Your task to perform on an android device: Show me productivity apps on the Play Store Image 0: 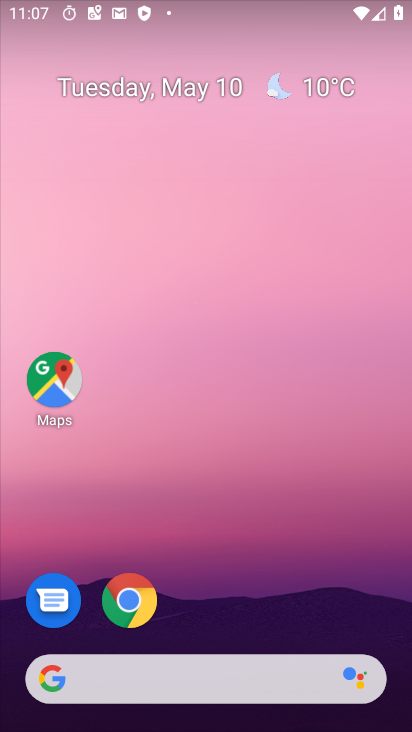
Step 0: drag from (233, 588) to (228, 0)
Your task to perform on an android device: Show me productivity apps on the Play Store Image 1: 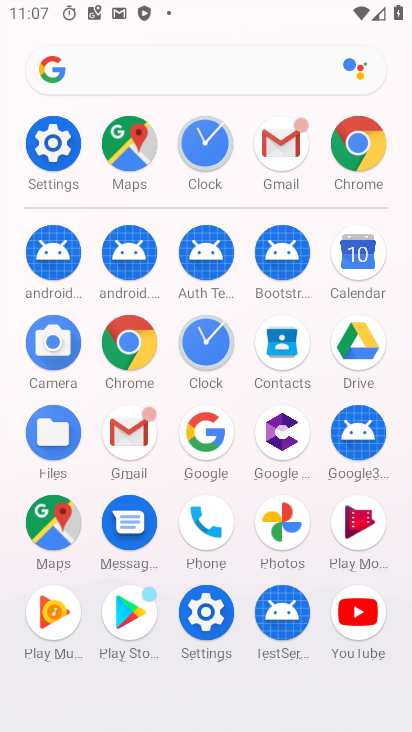
Step 1: drag from (3, 585) to (1, 264)
Your task to perform on an android device: Show me productivity apps on the Play Store Image 2: 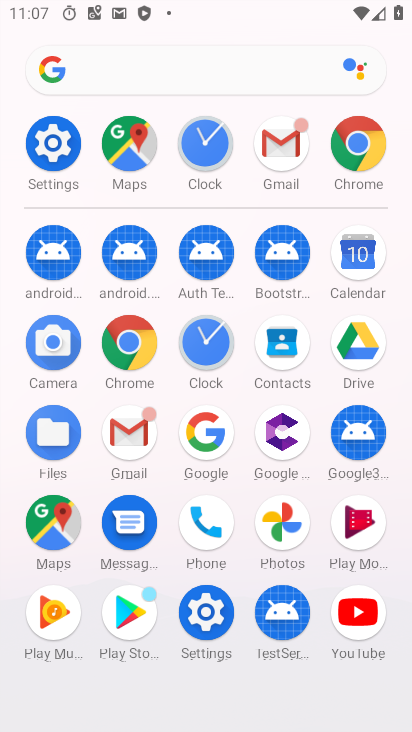
Step 2: click (129, 609)
Your task to perform on an android device: Show me productivity apps on the Play Store Image 3: 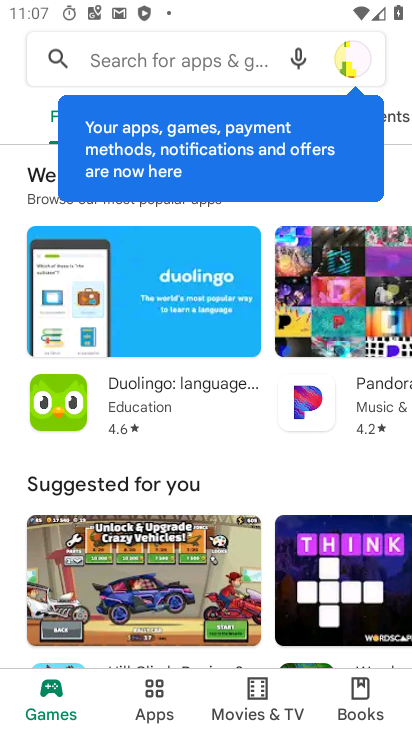
Step 3: click (154, 697)
Your task to perform on an android device: Show me productivity apps on the Play Store Image 4: 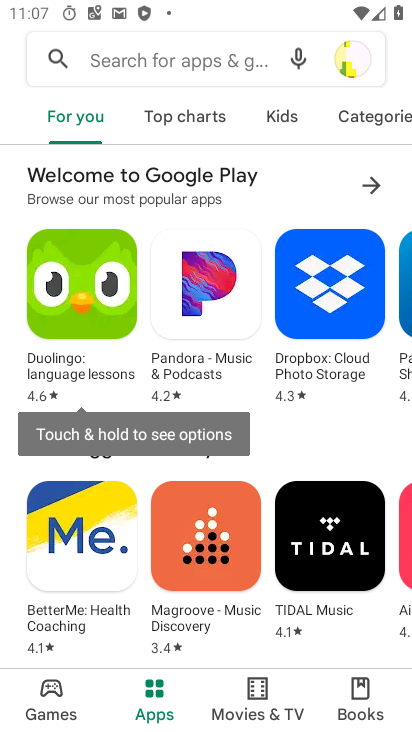
Step 4: click (387, 115)
Your task to perform on an android device: Show me productivity apps on the Play Store Image 5: 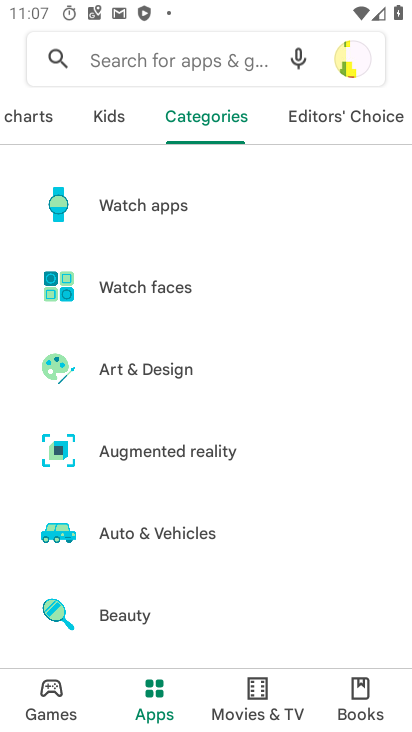
Step 5: drag from (226, 603) to (226, 218)
Your task to perform on an android device: Show me productivity apps on the Play Store Image 6: 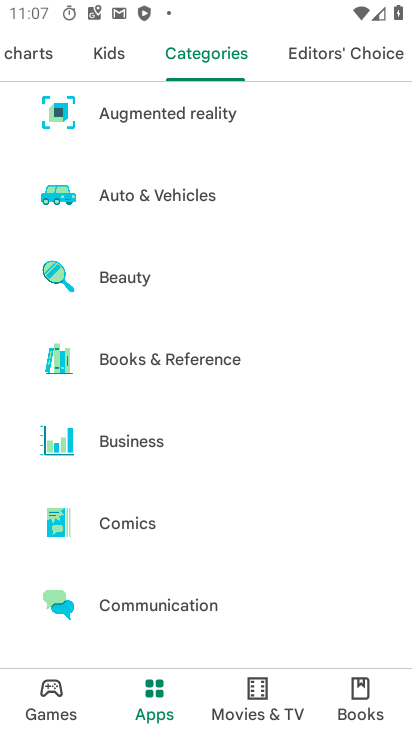
Step 6: drag from (170, 565) to (227, 196)
Your task to perform on an android device: Show me productivity apps on the Play Store Image 7: 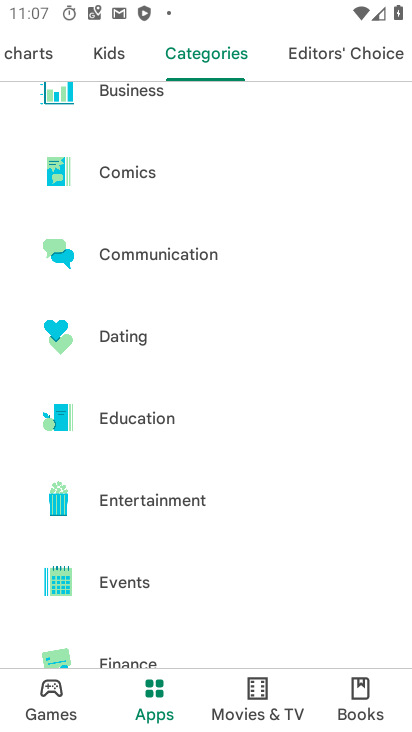
Step 7: drag from (222, 551) to (263, 169)
Your task to perform on an android device: Show me productivity apps on the Play Store Image 8: 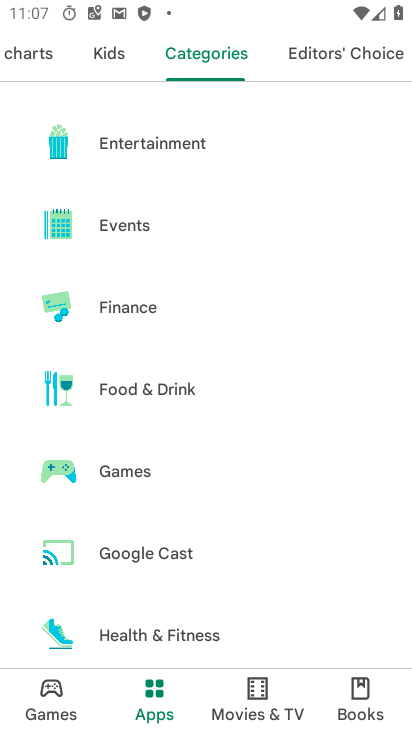
Step 8: drag from (212, 517) to (225, 156)
Your task to perform on an android device: Show me productivity apps on the Play Store Image 9: 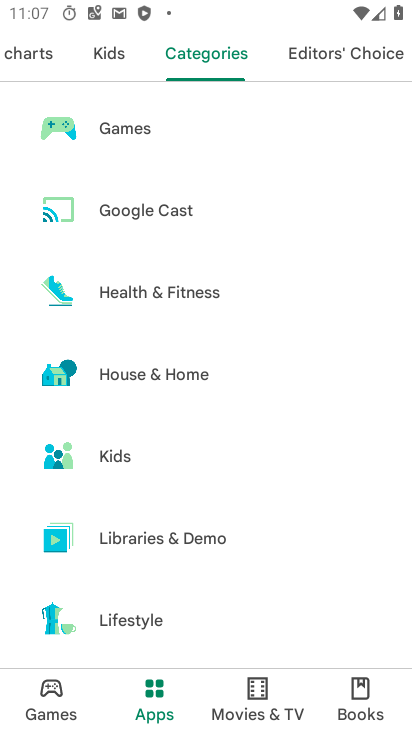
Step 9: drag from (205, 581) to (244, 156)
Your task to perform on an android device: Show me productivity apps on the Play Store Image 10: 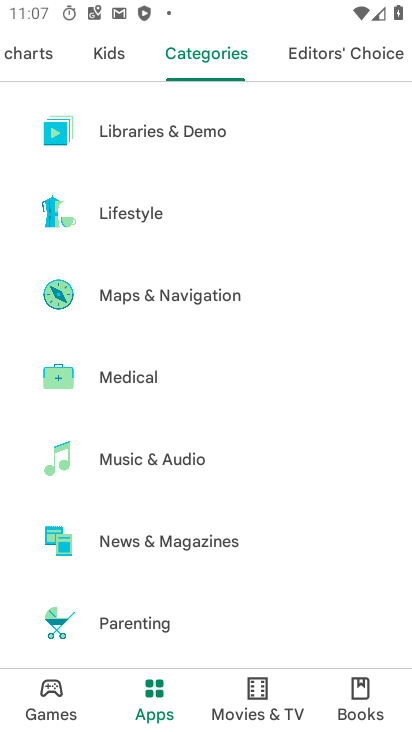
Step 10: drag from (255, 503) to (267, 166)
Your task to perform on an android device: Show me productivity apps on the Play Store Image 11: 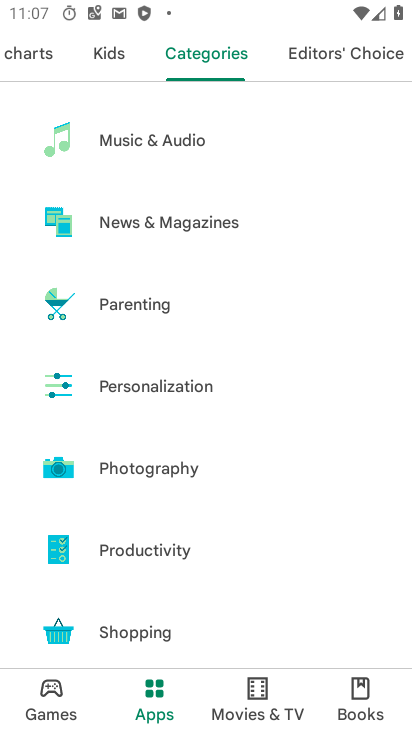
Step 11: click (179, 547)
Your task to perform on an android device: Show me productivity apps on the Play Store Image 12: 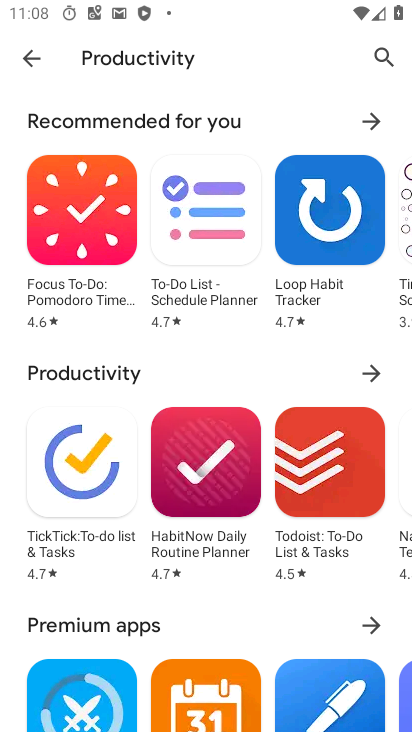
Step 12: task complete